Your task to perform on an android device: turn off picture-in-picture Image 0: 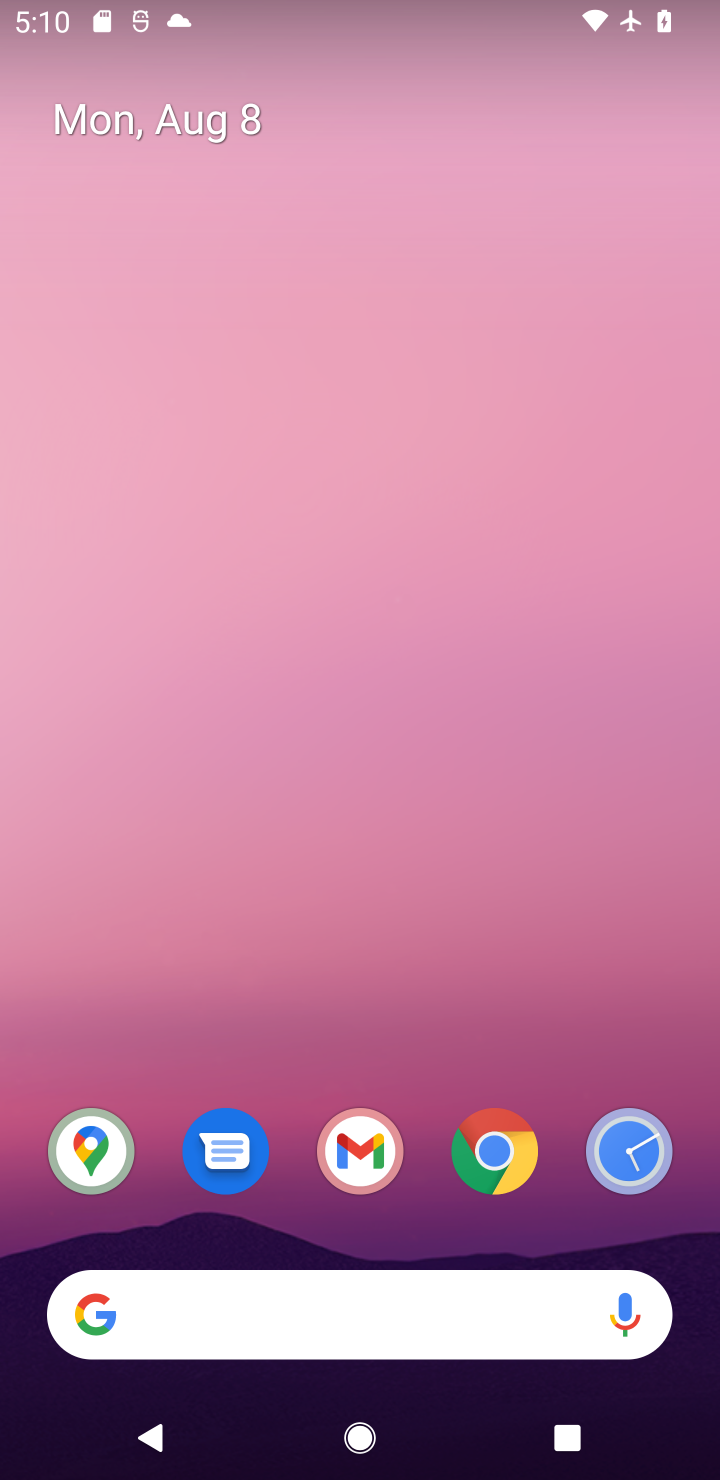
Step 0: click (501, 1173)
Your task to perform on an android device: turn off picture-in-picture Image 1: 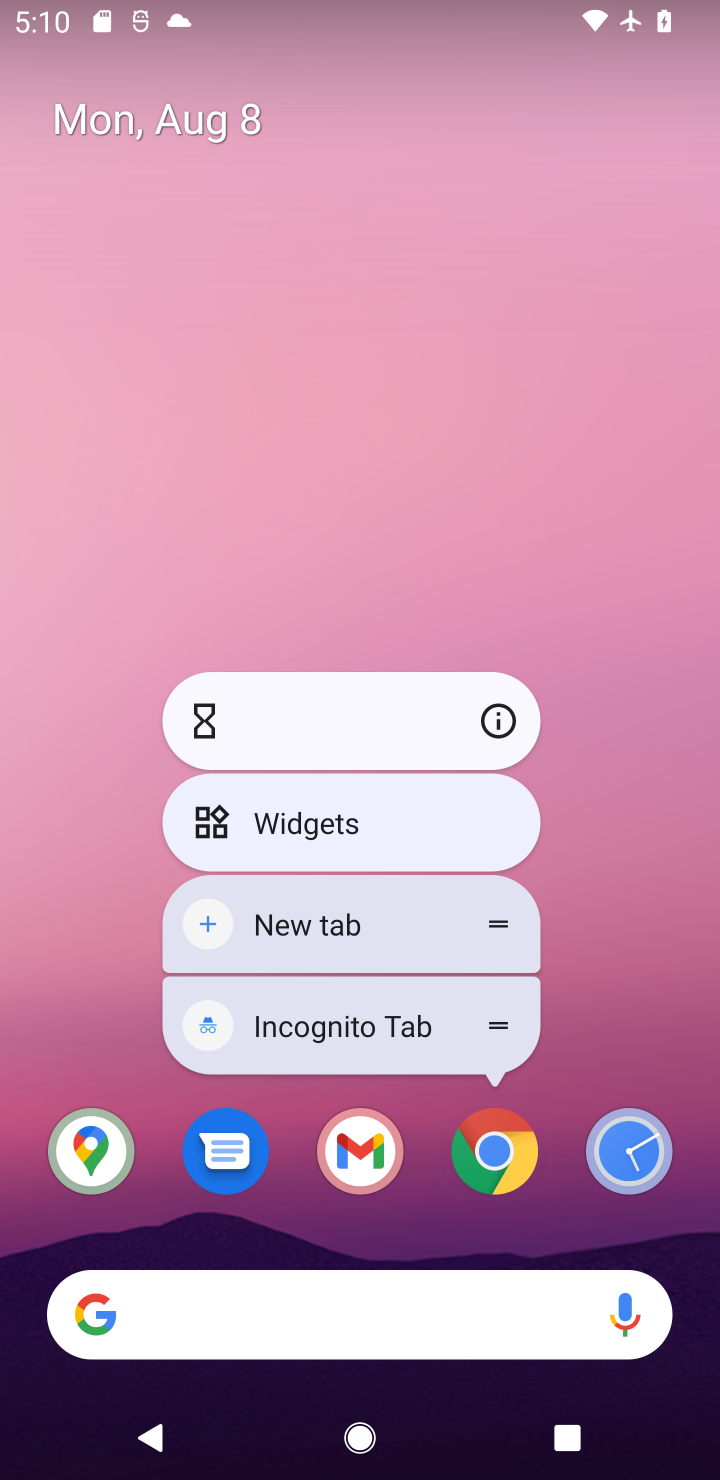
Step 1: click (513, 737)
Your task to perform on an android device: turn off picture-in-picture Image 2: 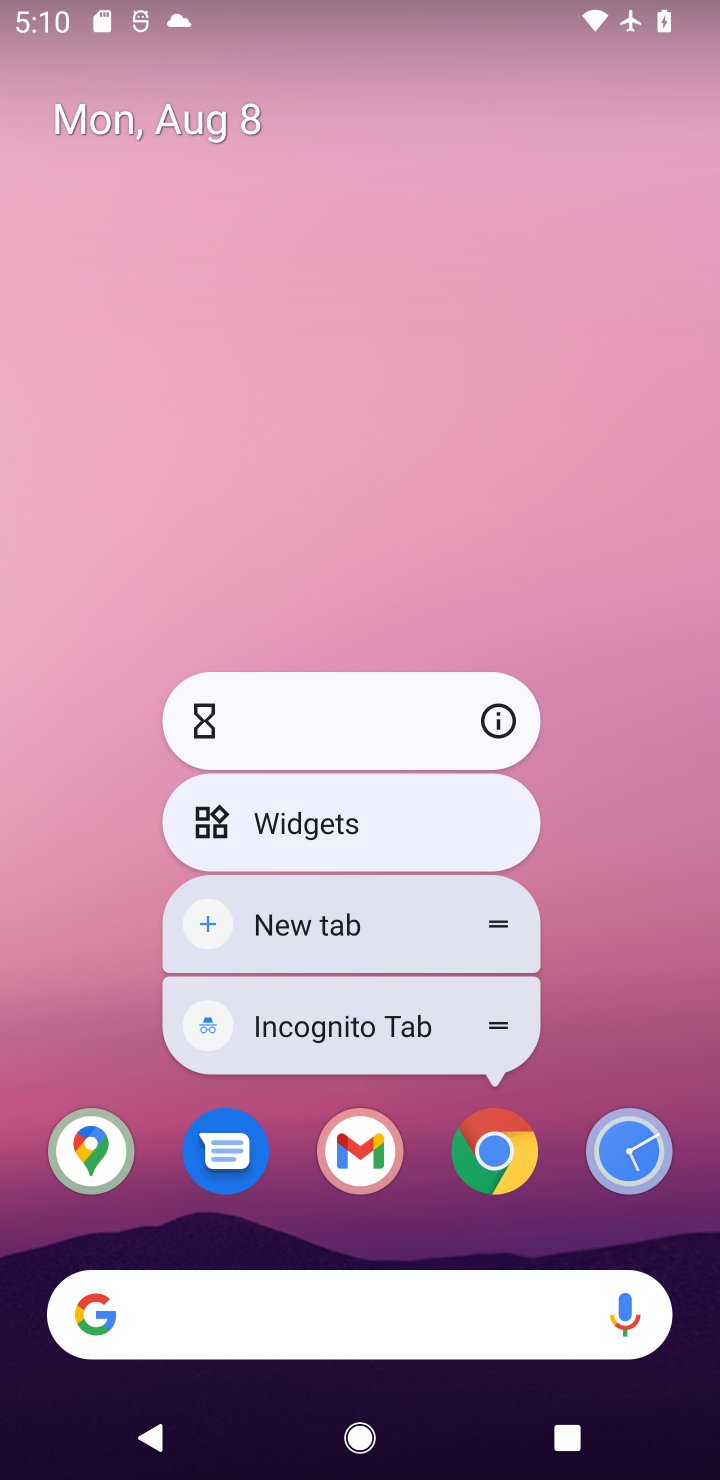
Step 2: click (495, 723)
Your task to perform on an android device: turn off picture-in-picture Image 3: 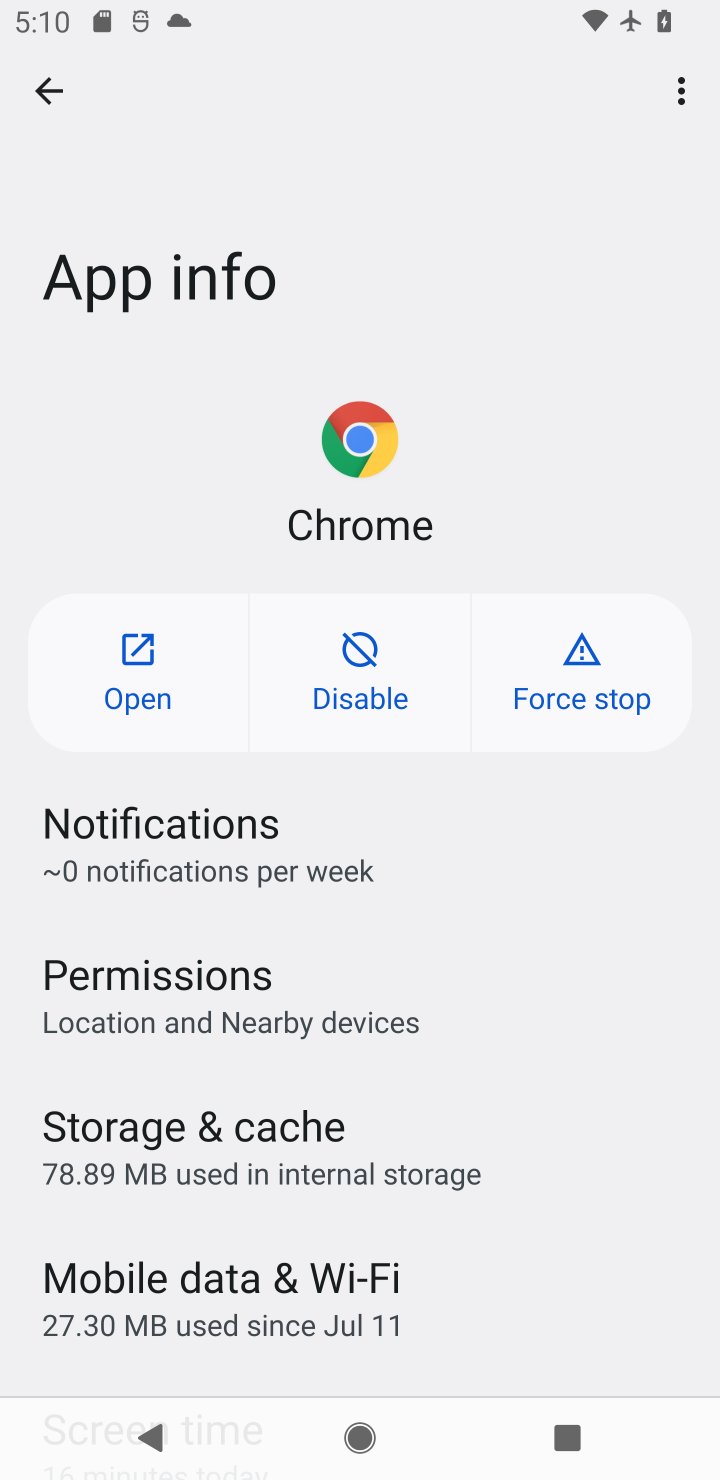
Step 3: drag from (391, 1267) to (350, 312)
Your task to perform on an android device: turn off picture-in-picture Image 4: 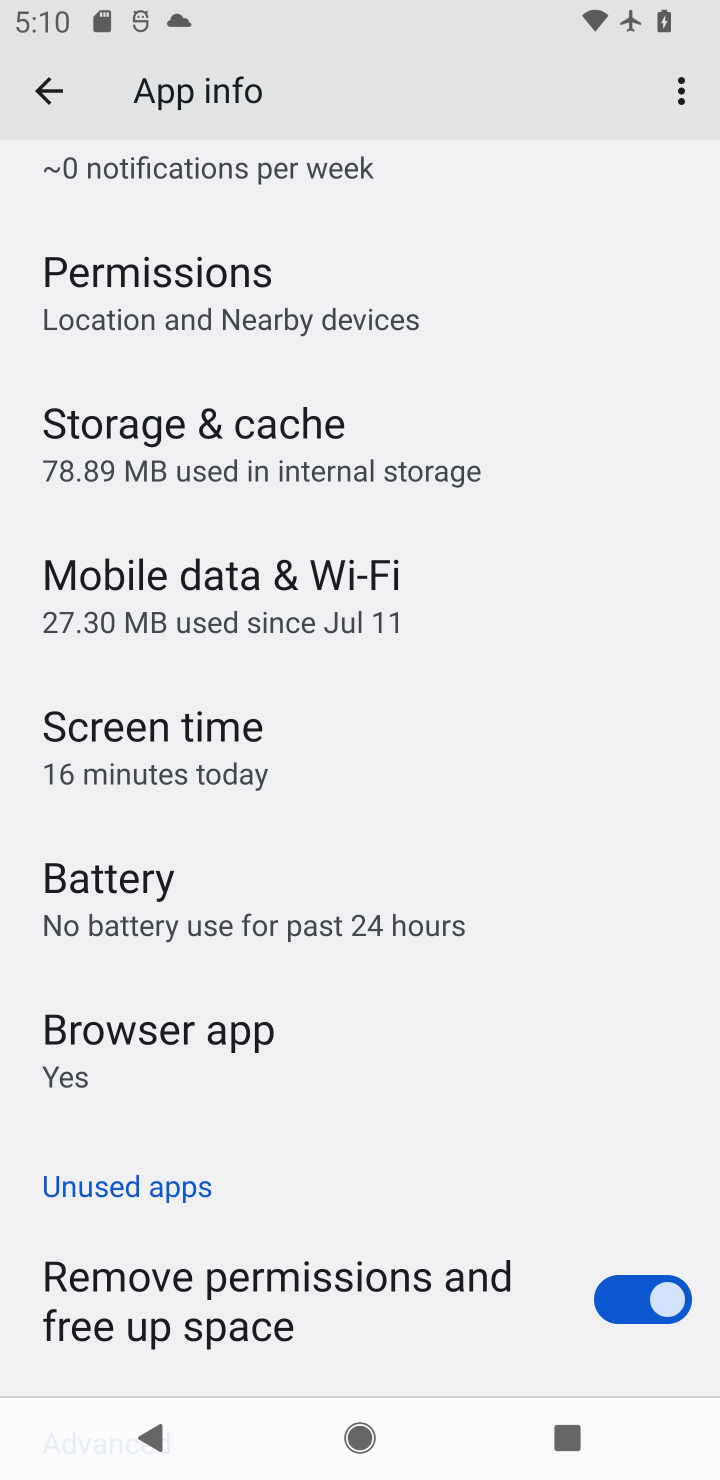
Step 4: drag from (409, 1247) to (403, 460)
Your task to perform on an android device: turn off picture-in-picture Image 5: 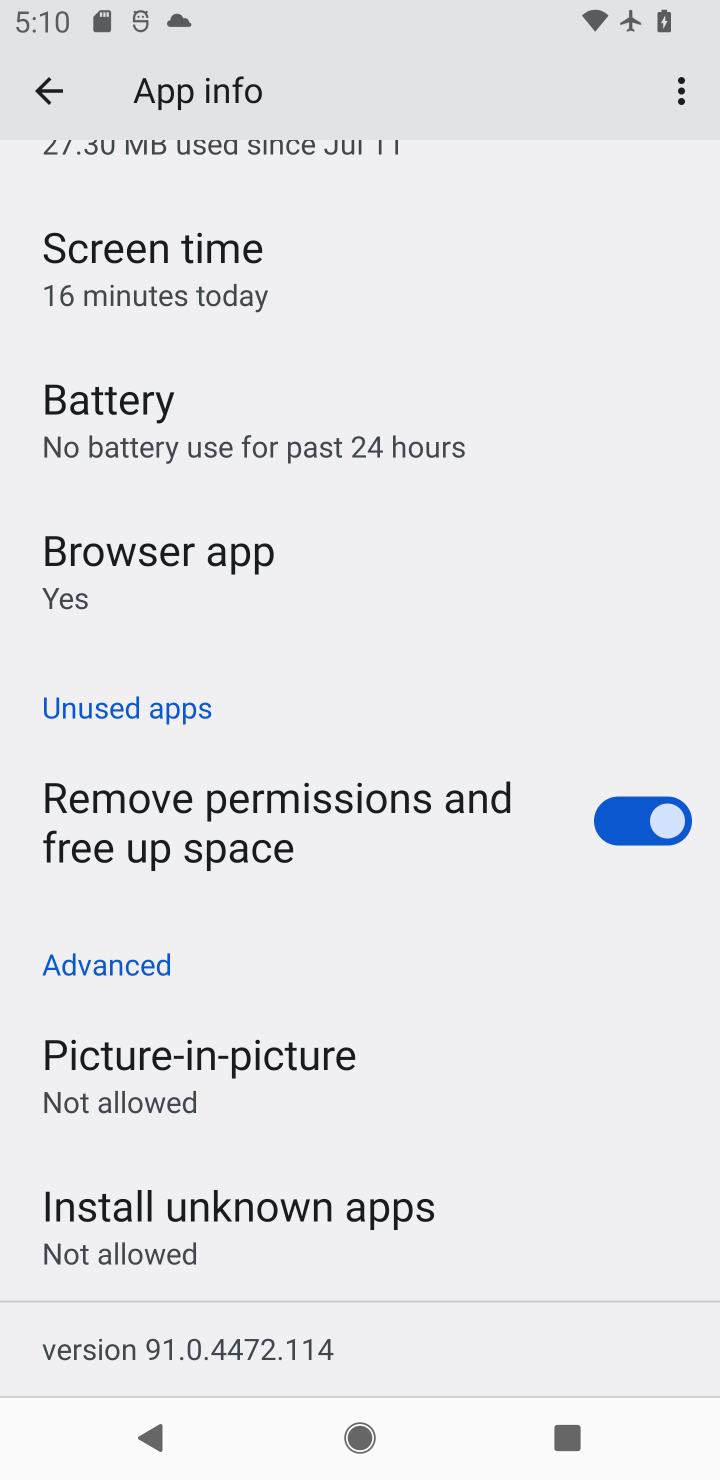
Step 5: click (335, 1078)
Your task to perform on an android device: turn off picture-in-picture Image 6: 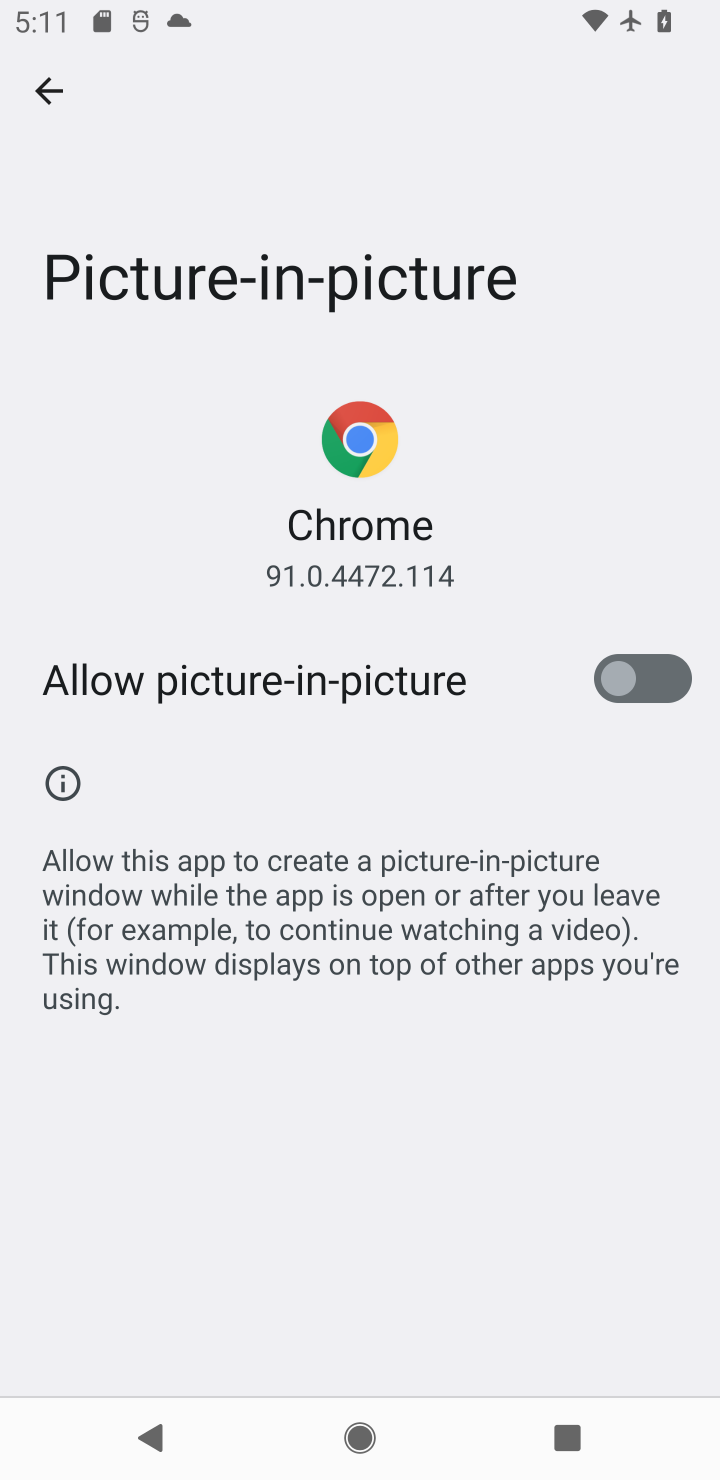
Step 6: task complete